Your task to perform on an android device: Go to location settings Image 0: 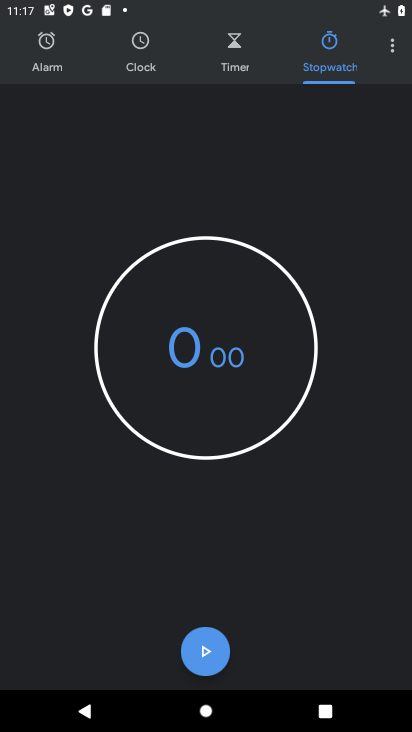
Step 0: press home button
Your task to perform on an android device: Go to location settings Image 1: 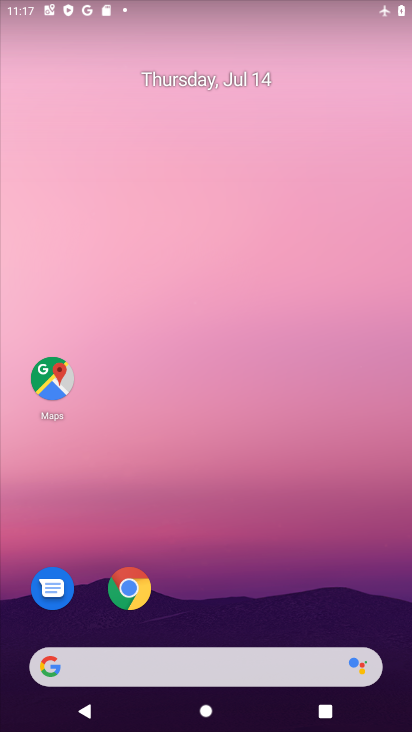
Step 1: drag from (183, 663) to (309, 117)
Your task to perform on an android device: Go to location settings Image 2: 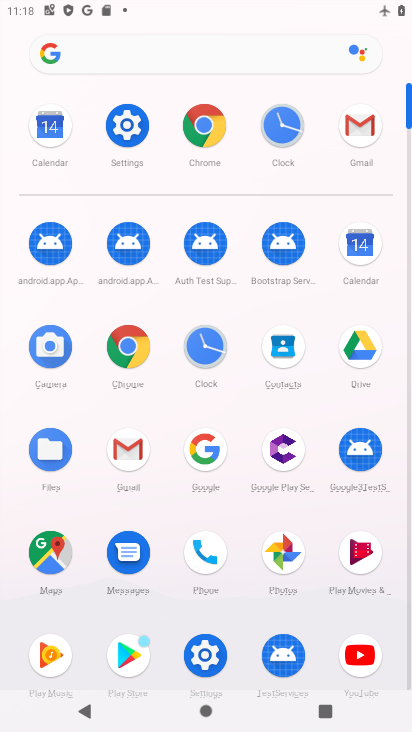
Step 2: click (125, 129)
Your task to perform on an android device: Go to location settings Image 3: 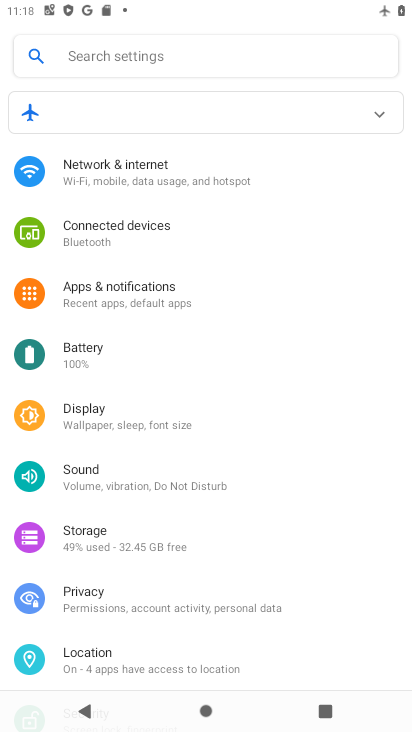
Step 3: click (126, 653)
Your task to perform on an android device: Go to location settings Image 4: 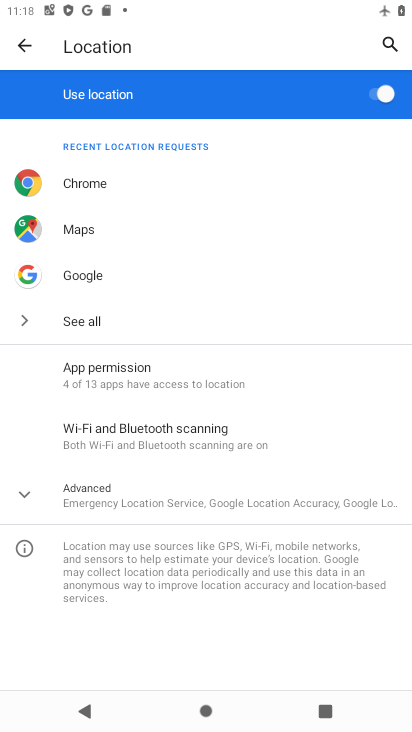
Step 4: task complete